Your task to perform on an android device: What's a good restaurant in Phoenix? Image 0: 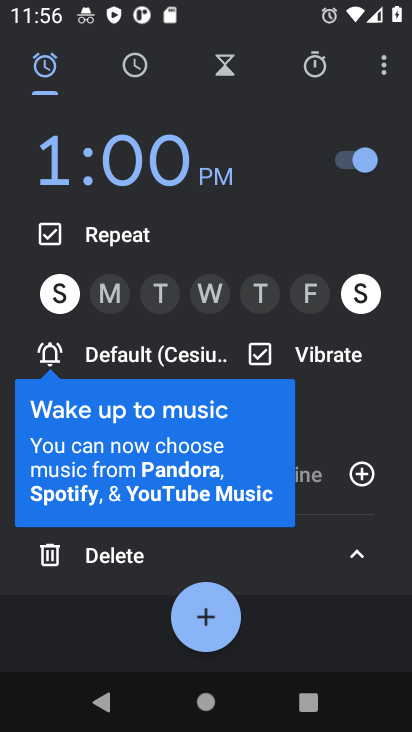
Step 0: press home button
Your task to perform on an android device: What's a good restaurant in Phoenix? Image 1: 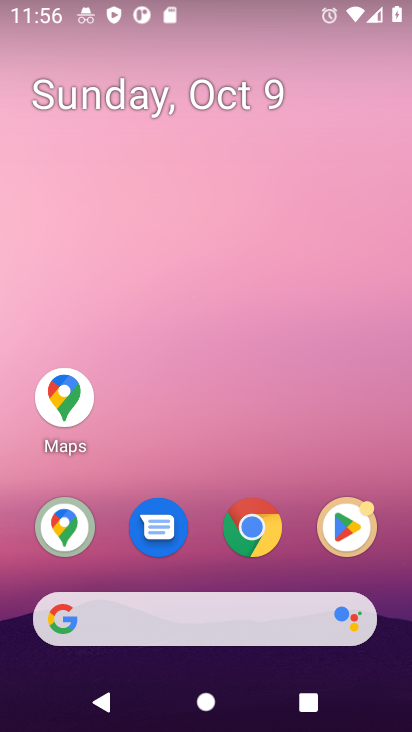
Step 1: click (252, 530)
Your task to perform on an android device: What's a good restaurant in Phoenix? Image 2: 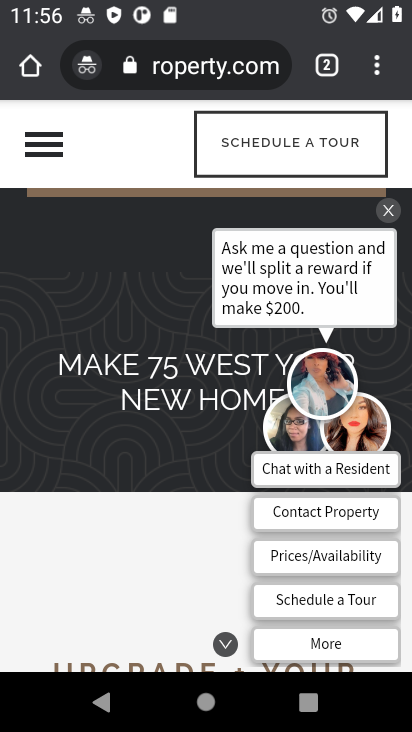
Step 2: click (116, 66)
Your task to perform on an android device: What's a good restaurant in Phoenix? Image 3: 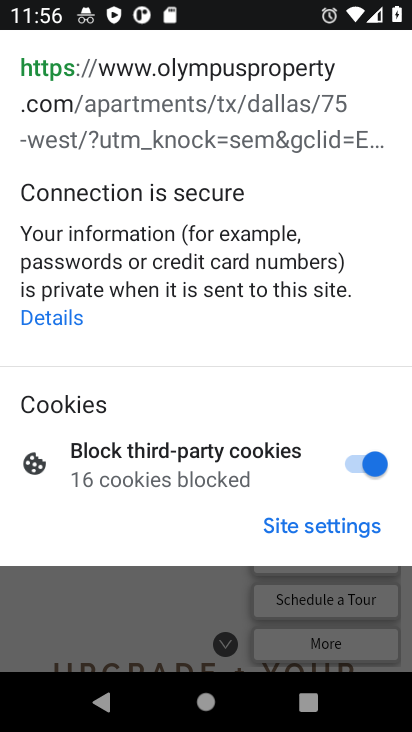
Step 3: drag from (199, 724) to (378, 709)
Your task to perform on an android device: What's a good restaurant in Phoenix? Image 4: 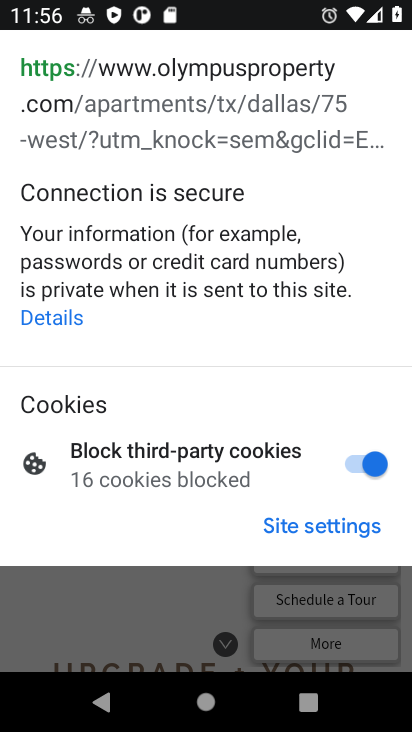
Step 4: click (346, 459)
Your task to perform on an android device: What's a good restaurant in Phoenix? Image 5: 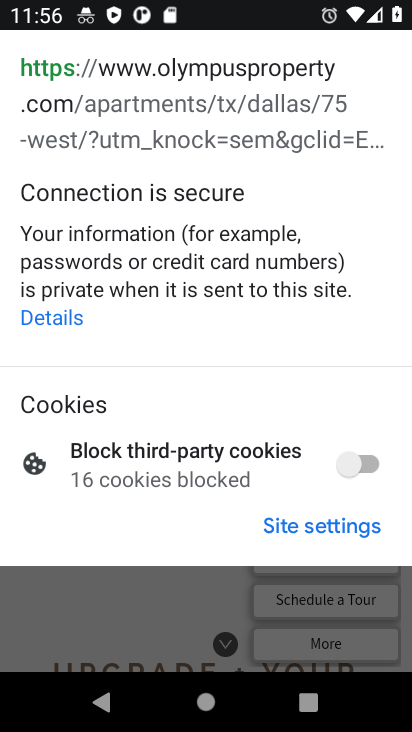
Step 5: press back button
Your task to perform on an android device: What's a good restaurant in Phoenix? Image 6: 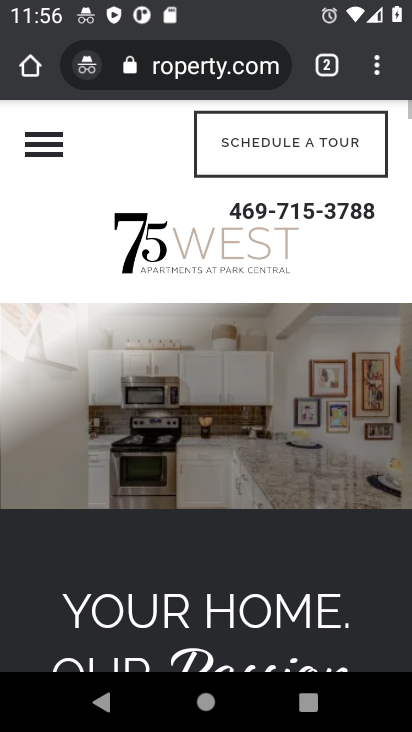
Step 6: click (184, 60)
Your task to perform on an android device: What's a good restaurant in Phoenix? Image 7: 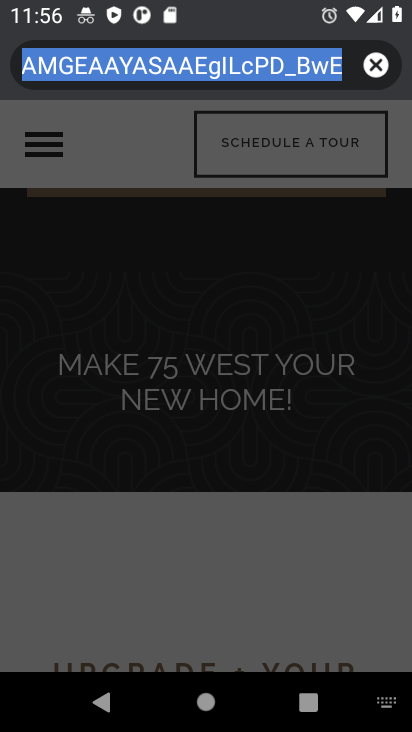
Step 7: type "What's a good restaurant in Phoenix?"
Your task to perform on an android device: What's a good restaurant in Phoenix? Image 8: 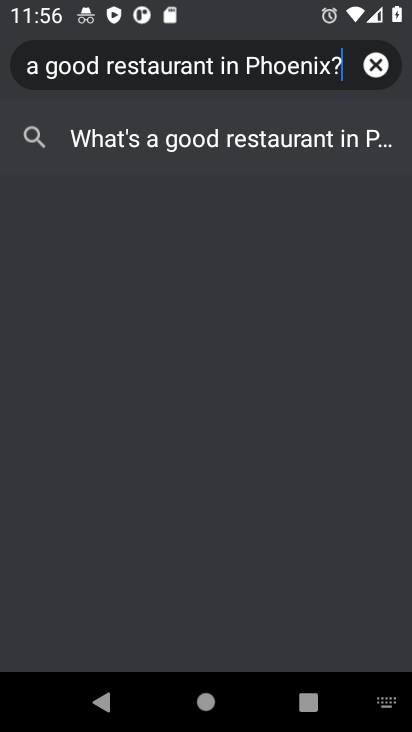
Step 8: click (298, 145)
Your task to perform on an android device: What's a good restaurant in Phoenix? Image 9: 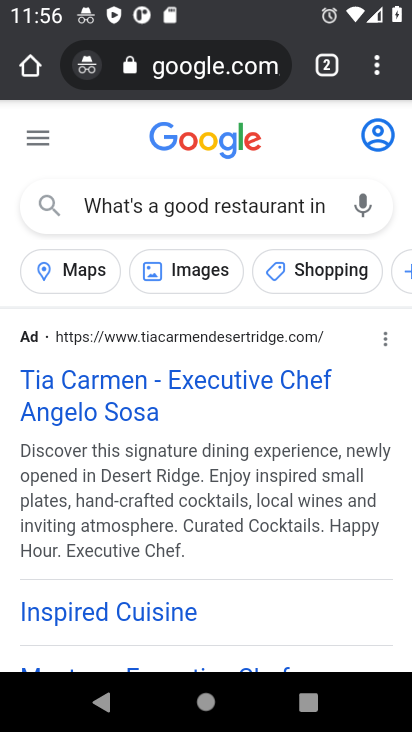
Step 9: click (268, 397)
Your task to perform on an android device: What's a good restaurant in Phoenix? Image 10: 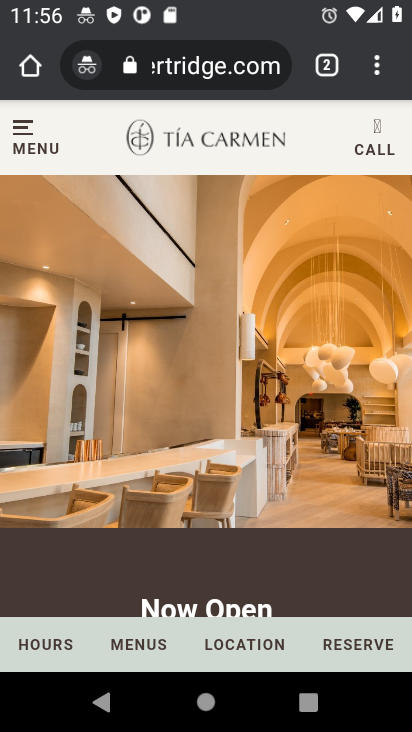
Step 10: task complete